Your task to perform on an android device: Open notification settings Image 0: 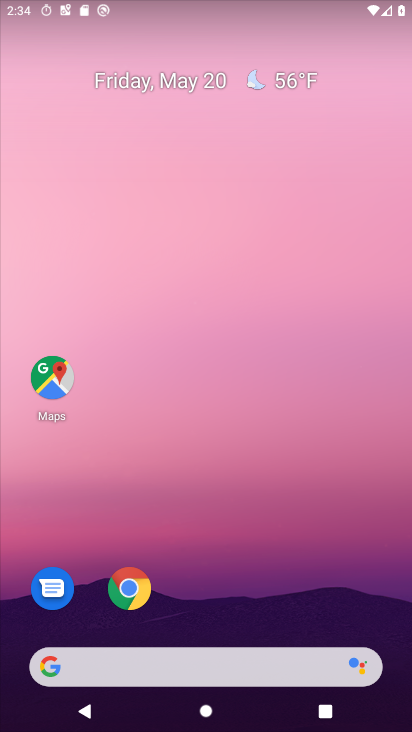
Step 0: drag from (9, 580) to (185, 249)
Your task to perform on an android device: Open notification settings Image 1: 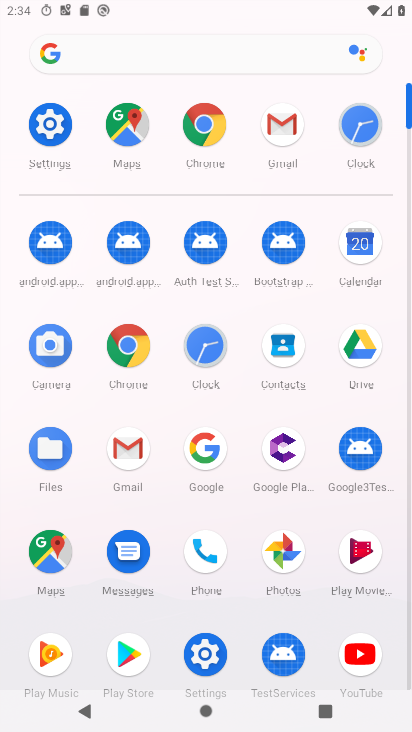
Step 1: click (59, 129)
Your task to perform on an android device: Open notification settings Image 2: 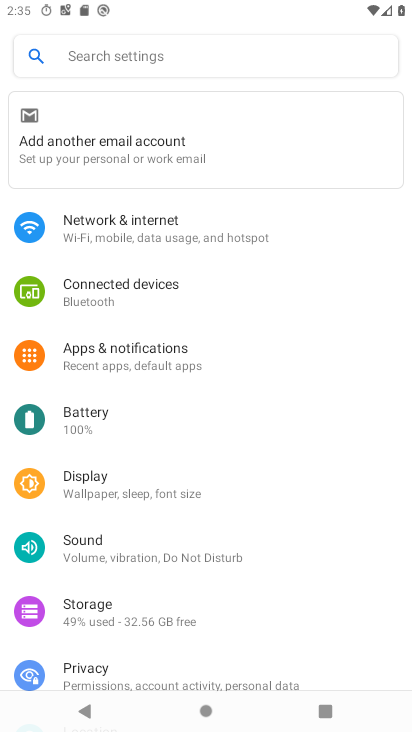
Step 2: click (176, 345)
Your task to perform on an android device: Open notification settings Image 3: 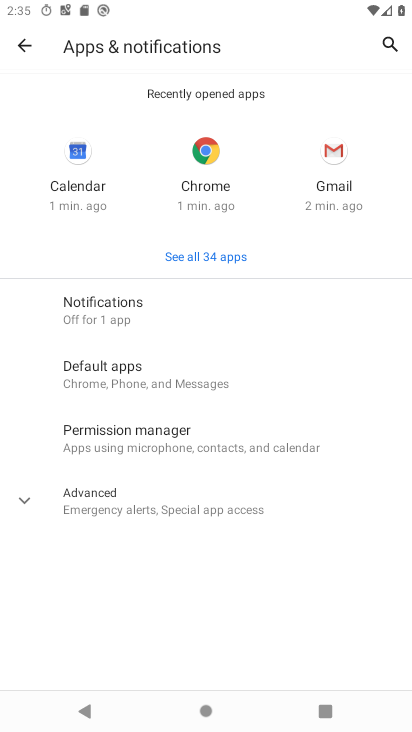
Step 3: click (136, 309)
Your task to perform on an android device: Open notification settings Image 4: 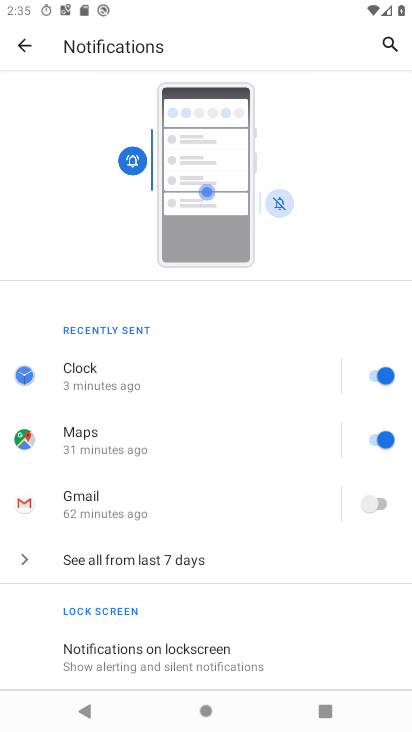
Step 4: task complete